Your task to perform on an android device: Open Amazon Image 0: 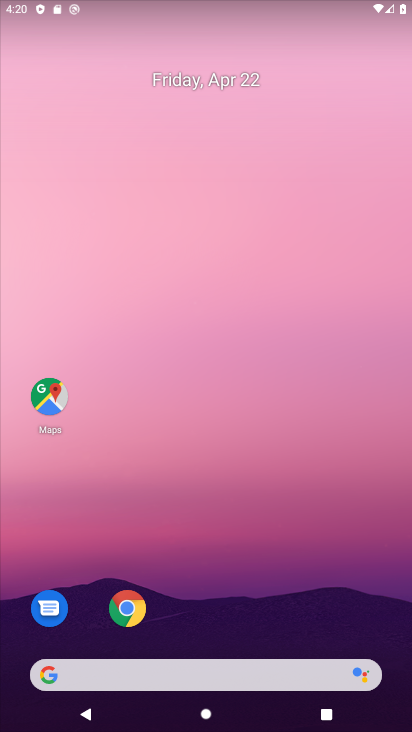
Step 0: drag from (283, 506) to (289, 197)
Your task to perform on an android device: Open Amazon Image 1: 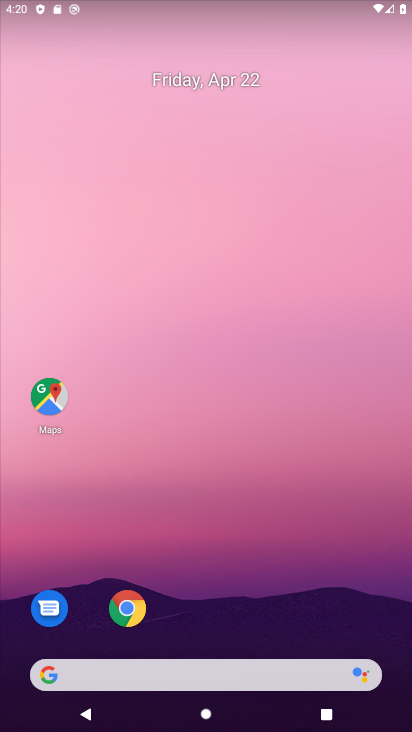
Step 1: drag from (232, 592) to (261, 393)
Your task to perform on an android device: Open Amazon Image 2: 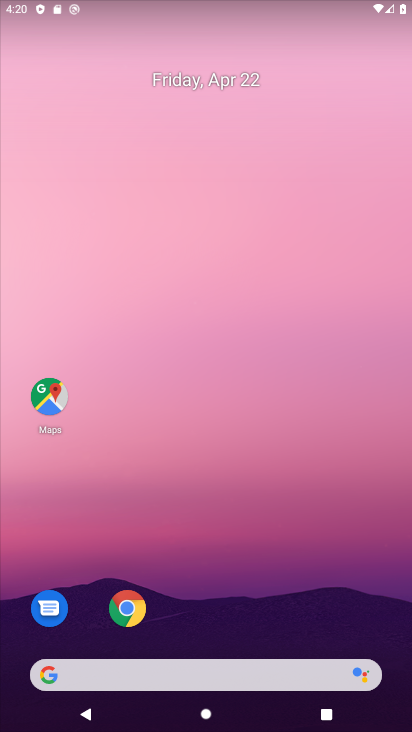
Step 2: drag from (203, 616) to (208, 302)
Your task to perform on an android device: Open Amazon Image 3: 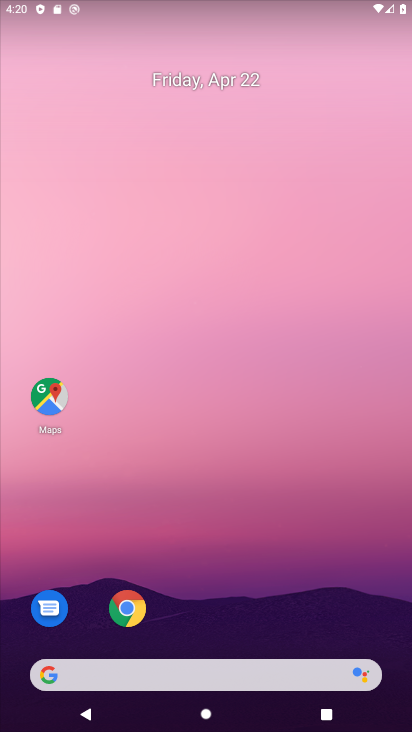
Step 3: drag from (182, 582) to (203, 233)
Your task to perform on an android device: Open Amazon Image 4: 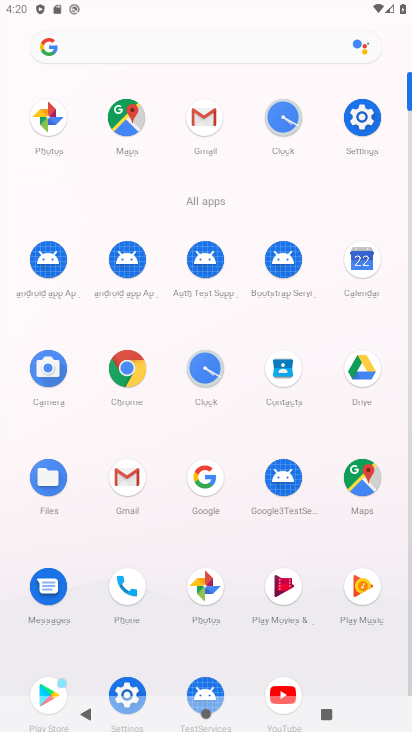
Step 4: click (121, 375)
Your task to perform on an android device: Open Amazon Image 5: 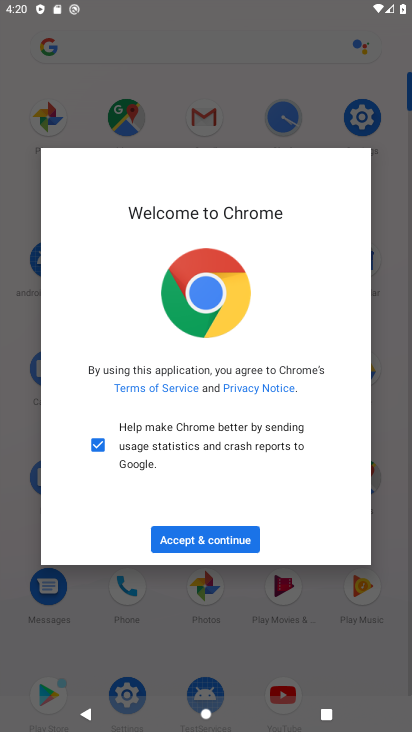
Step 5: click (232, 539)
Your task to perform on an android device: Open Amazon Image 6: 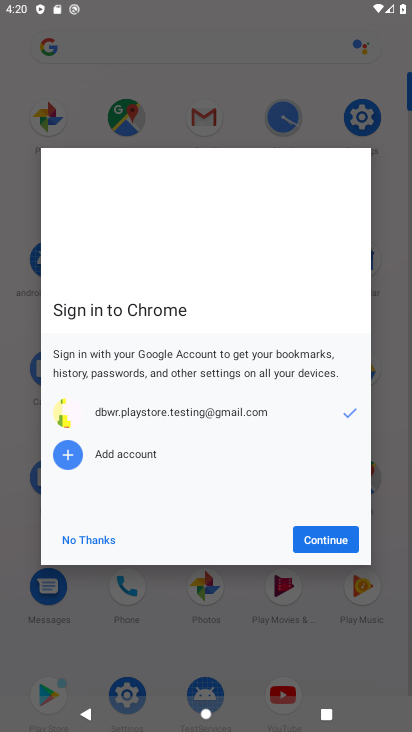
Step 6: click (295, 544)
Your task to perform on an android device: Open Amazon Image 7: 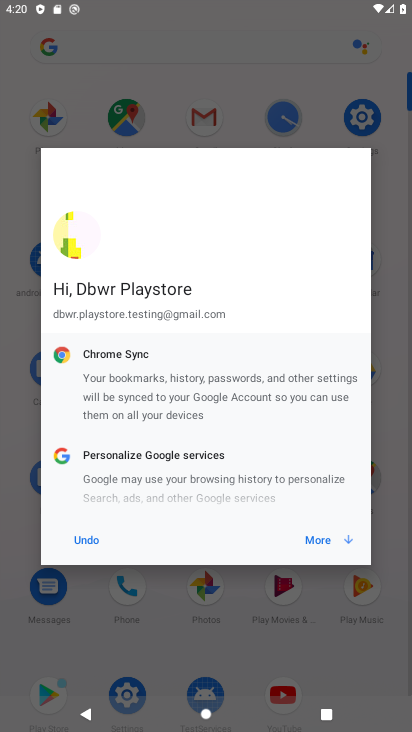
Step 7: click (320, 541)
Your task to perform on an android device: Open Amazon Image 8: 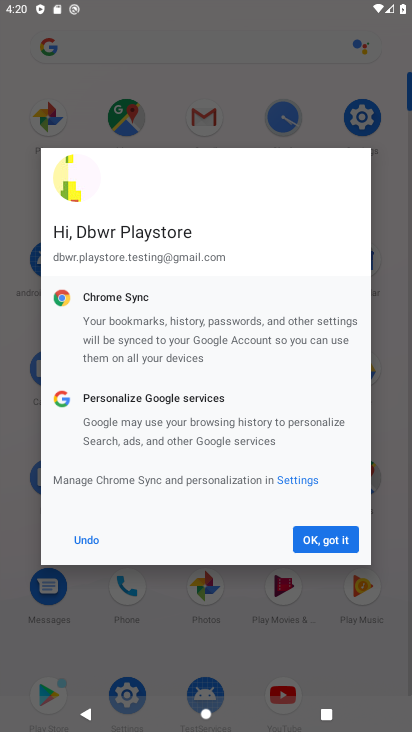
Step 8: click (314, 535)
Your task to perform on an android device: Open Amazon Image 9: 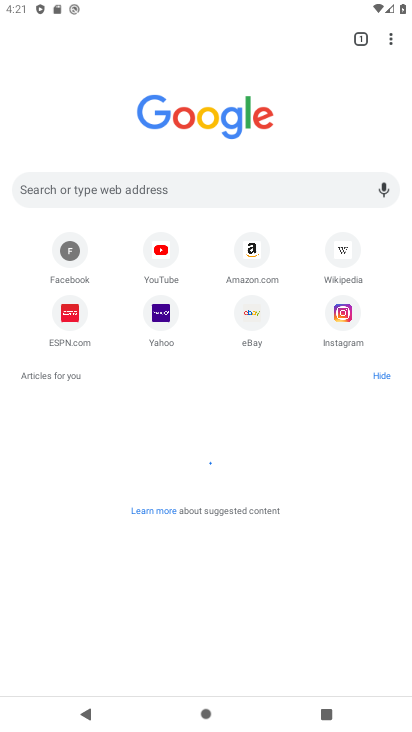
Step 9: click (257, 264)
Your task to perform on an android device: Open Amazon Image 10: 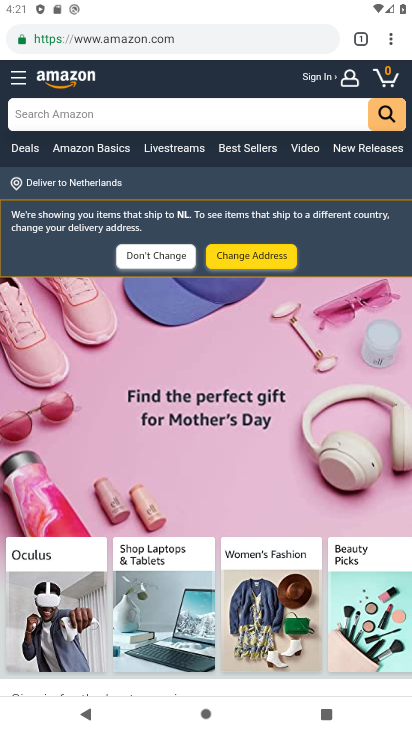
Step 10: task complete